Your task to perform on an android device: change text size in settings app Image 0: 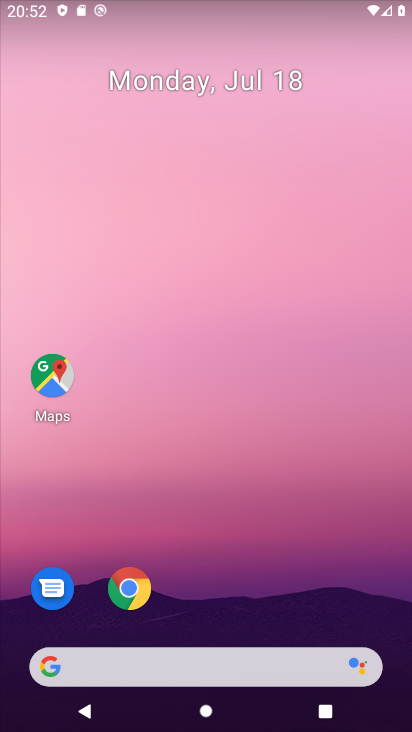
Step 0: press home button
Your task to perform on an android device: change text size in settings app Image 1: 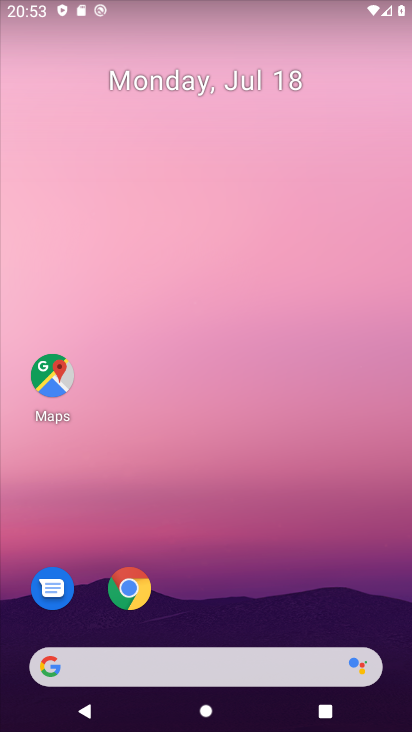
Step 1: drag from (385, 608) to (203, 174)
Your task to perform on an android device: change text size in settings app Image 2: 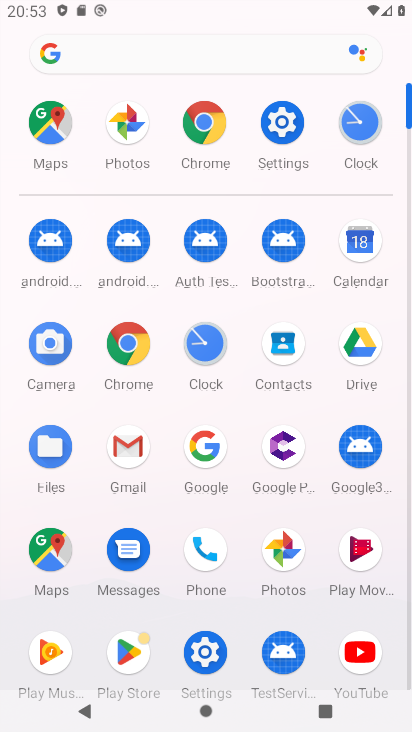
Step 2: click (221, 659)
Your task to perform on an android device: change text size in settings app Image 3: 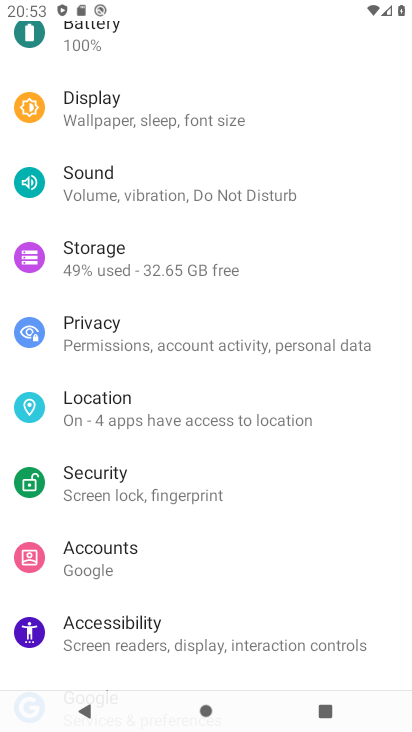
Step 3: drag from (161, 136) to (193, 674)
Your task to perform on an android device: change text size in settings app Image 4: 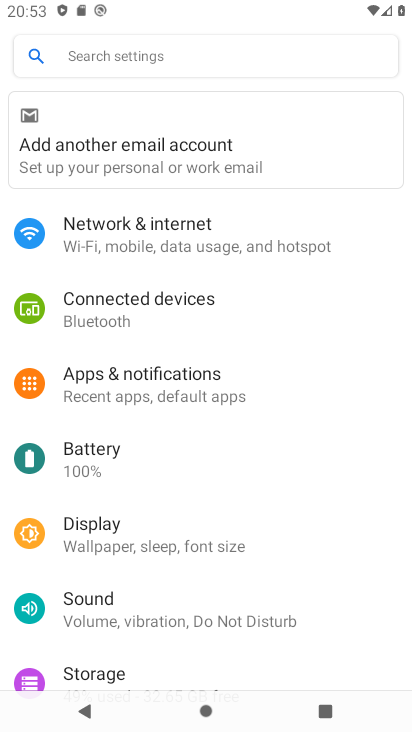
Step 4: drag from (139, 551) to (151, 313)
Your task to perform on an android device: change text size in settings app Image 5: 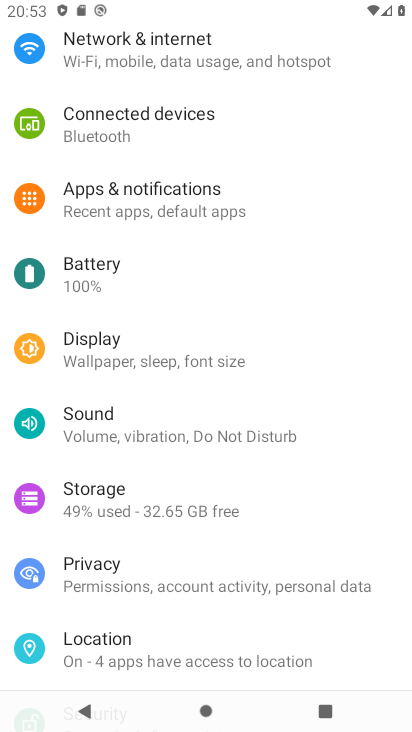
Step 5: click (73, 354)
Your task to perform on an android device: change text size in settings app Image 6: 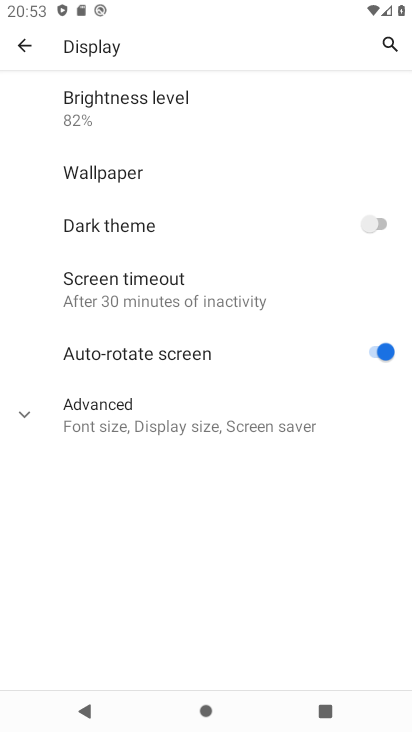
Step 6: click (90, 445)
Your task to perform on an android device: change text size in settings app Image 7: 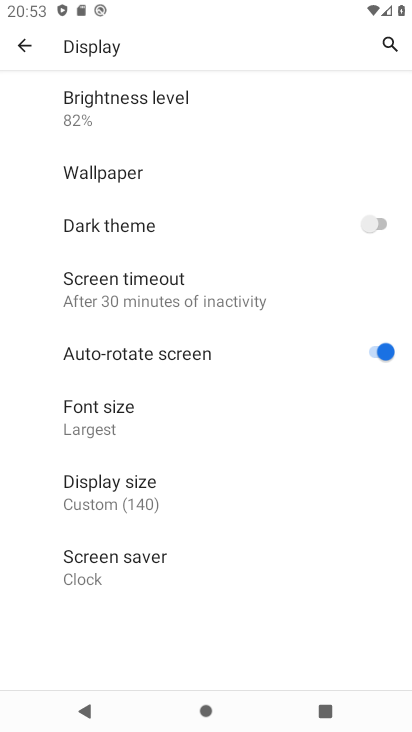
Step 7: click (90, 445)
Your task to perform on an android device: change text size in settings app Image 8: 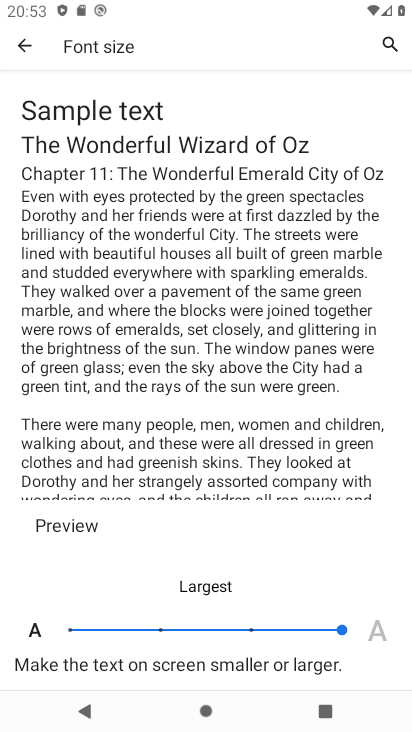
Step 8: click (41, 622)
Your task to perform on an android device: change text size in settings app Image 9: 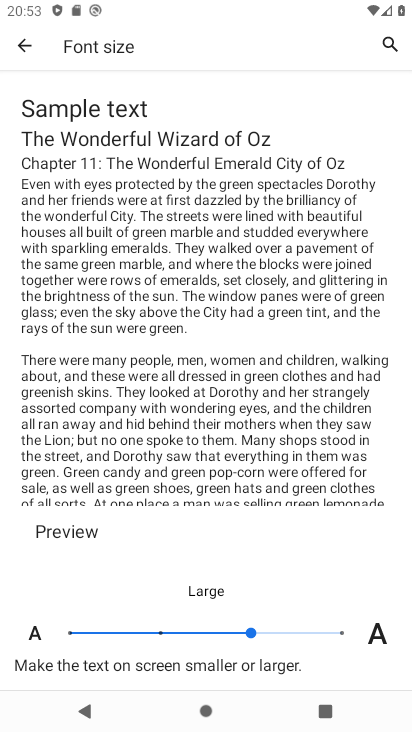
Step 9: task complete